Your task to perform on an android device: set default search engine in the chrome app Image 0: 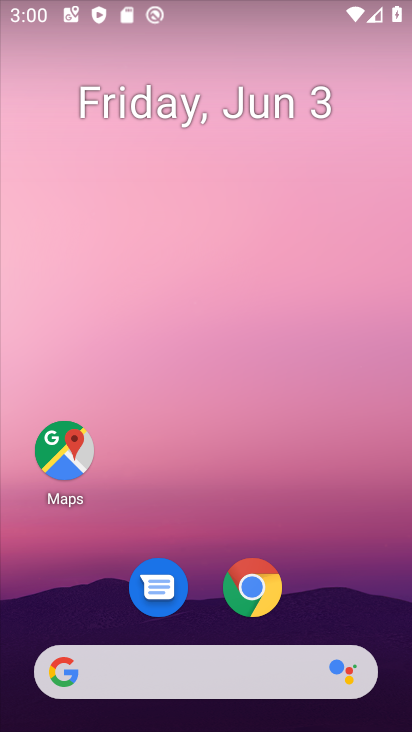
Step 0: click (261, 591)
Your task to perform on an android device: set default search engine in the chrome app Image 1: 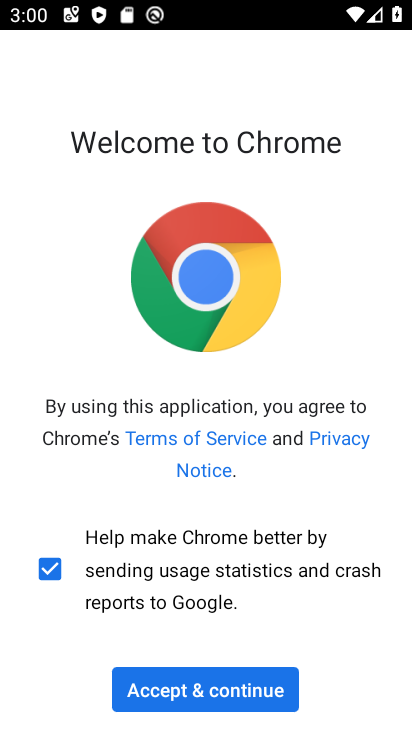
Step 1: click (224, 697)
Your task to perform on an android device: set default search engine in the chrome app Image 2: 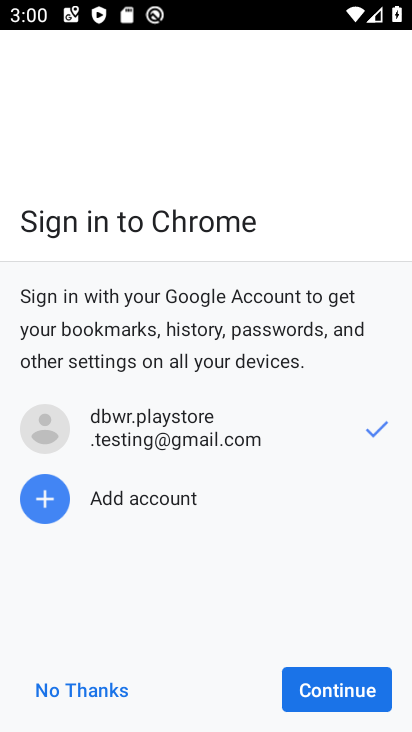
Step 2: click (351, 684)
Your task to perform on an android device: set default search engine in the chrome app Image 3: 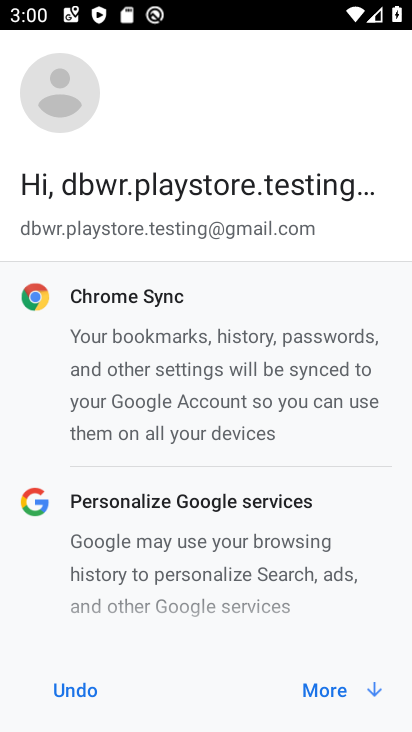
Step 3: click (326, 687)
Your task to perform on an android device: set default search engine in the chrome app Image 4: 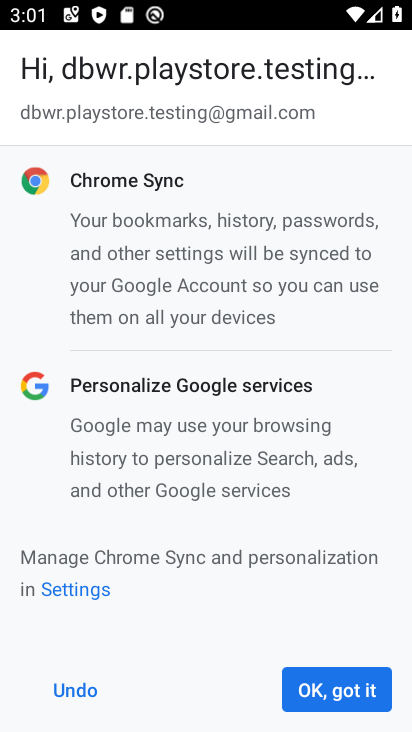
Step 4: click (335, 686)
Your task to perform on an android device: set default search engine in the chrome app Image 5: 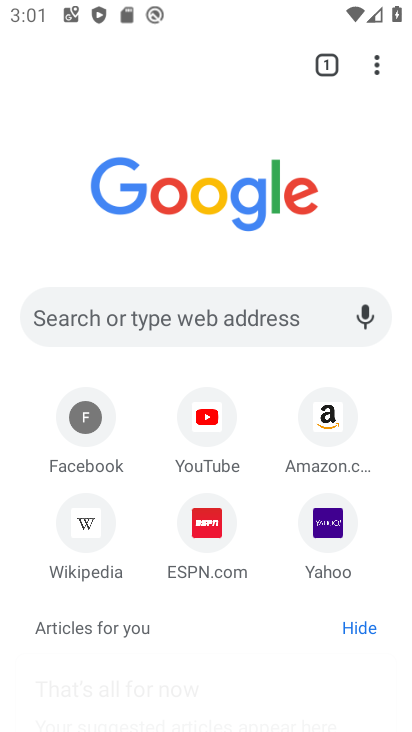
Step 5: click (377, 68)
Your task to perform on an android device: set default search engine in the chrome app Image 6: 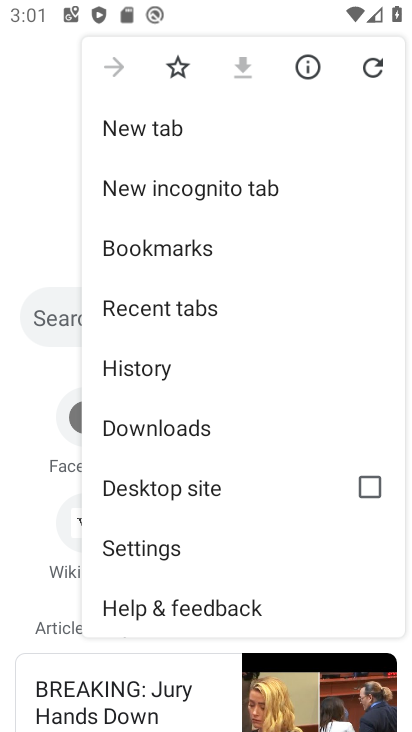
Step 6: click (149, 550)
Your task to perform on an android device: set default search engine in the chrome app Image 7: 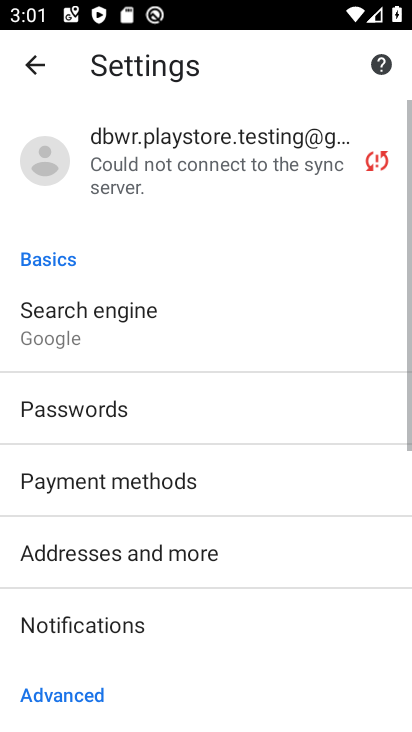
Step 7: click (71, 333)
Your task to perform on an android device: set default search engine in the chrome app Image 8: 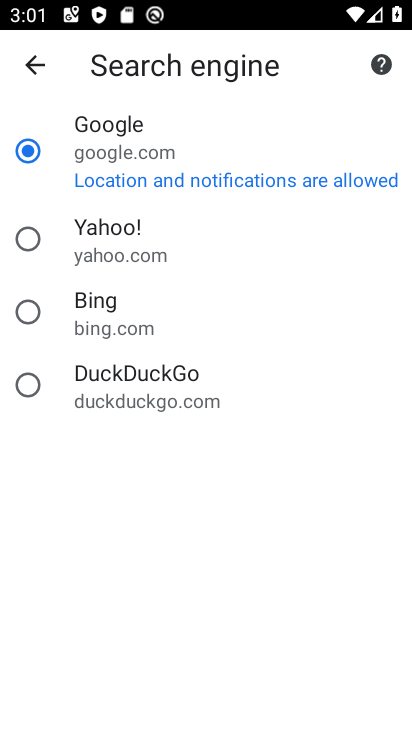
Step 8: click (33, 242)
Your task to perform on an android device: set default search engine in the chrome app Image 9: 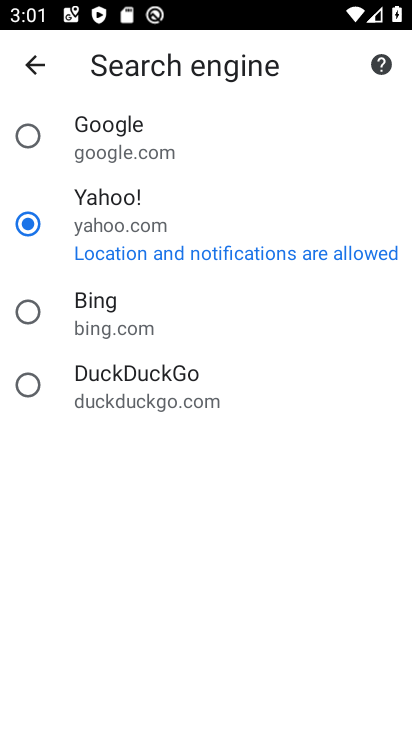
Step 9: task complete